Your task to perform on an android device: Open notification settings Image 0: 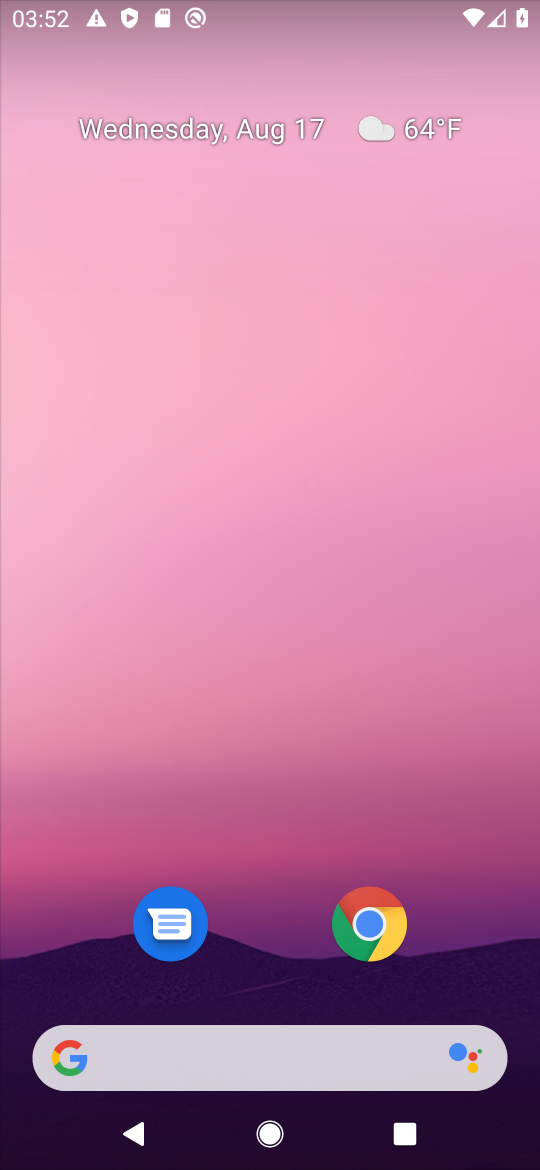
Step 0: drag from (289, 1007) to (183, 28)
Your task to perform on an android device: Open notification settings Image 1: 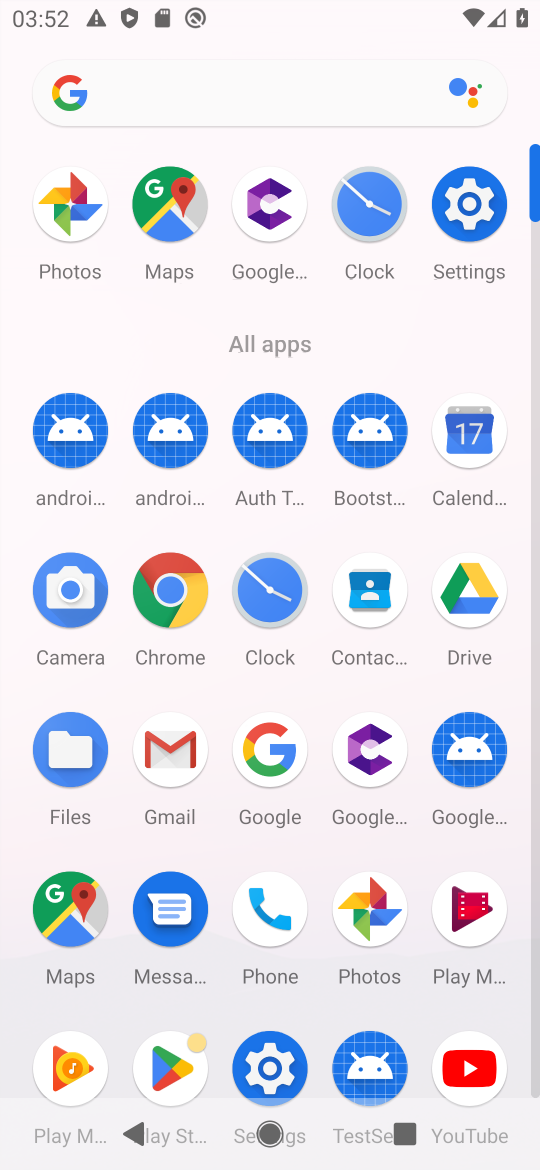
Step 1: click (449, 205)
Your task to perform on an android device: Open notification settings Image 2: 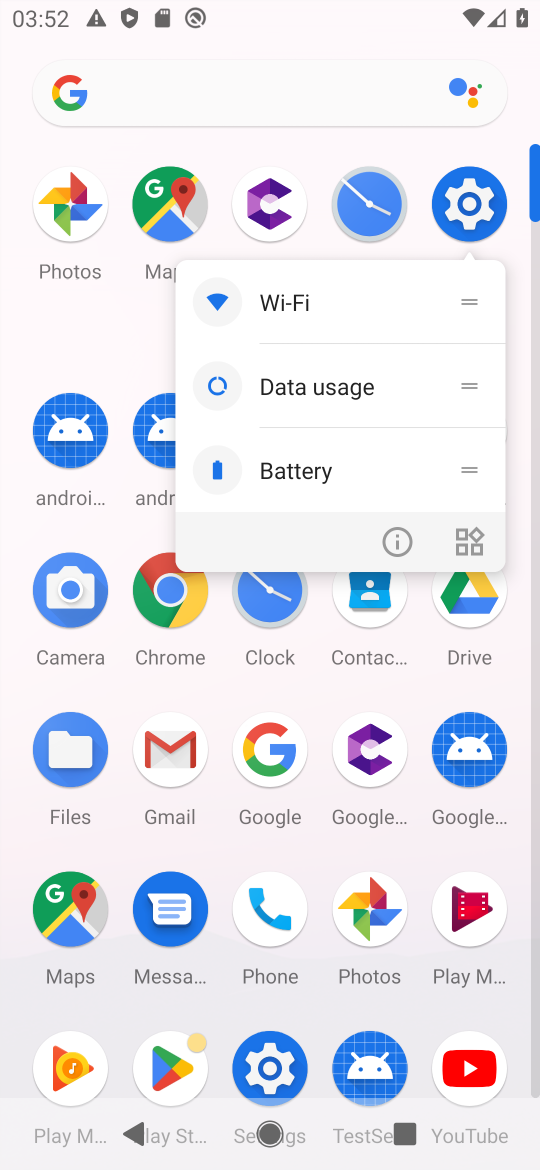
Step 2: click (451, 201)
Your task to perform on an android device: Open notification settings Image 3: 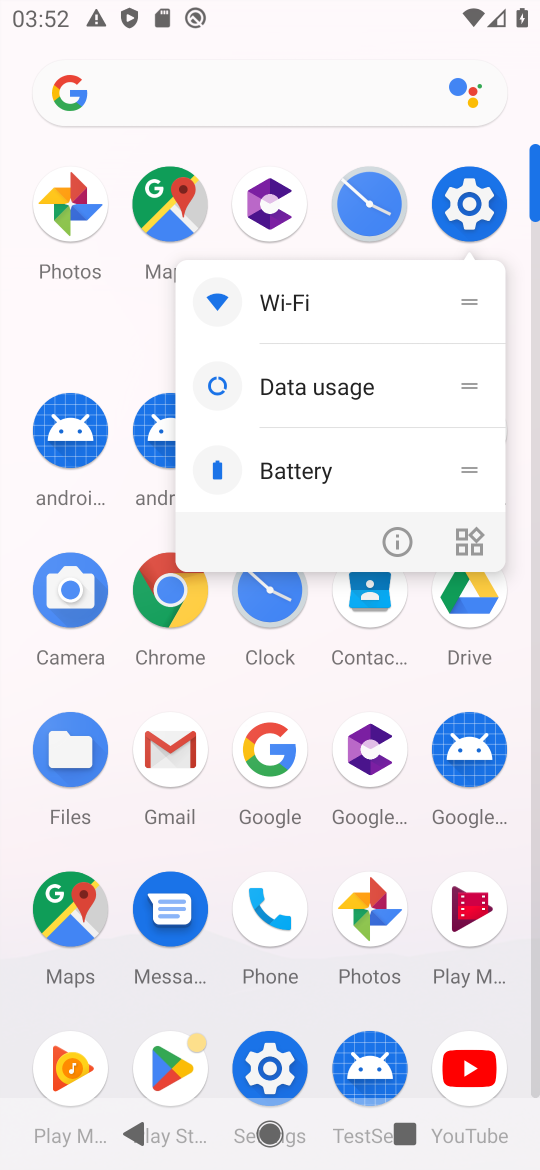
Step 3: click (470, 234)
Your task to perform on an android device: Open notification settings Image 4: 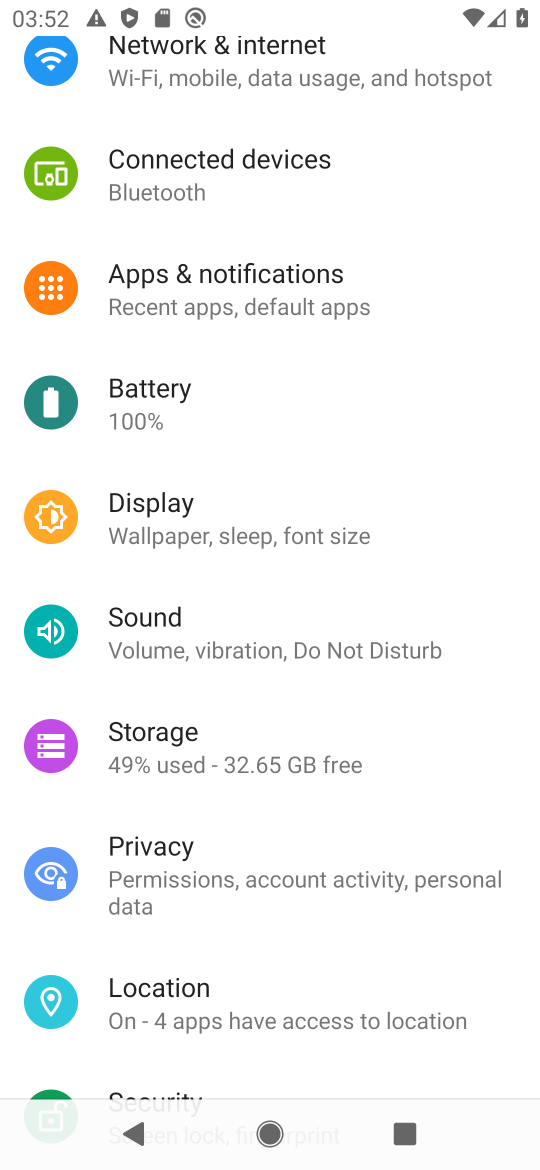
Step 4: click (199, 269)
Your task to perform on an android device: Open notification settings Image 5: 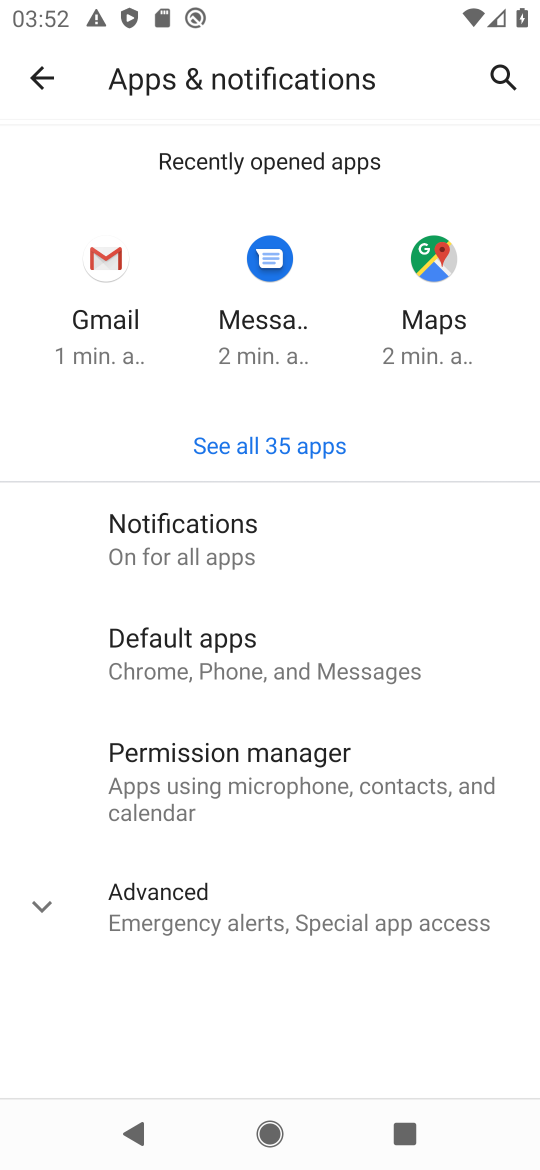
Step 5: click (180, 517)
Your task to perform on an android device: Open notification settings Image 6: 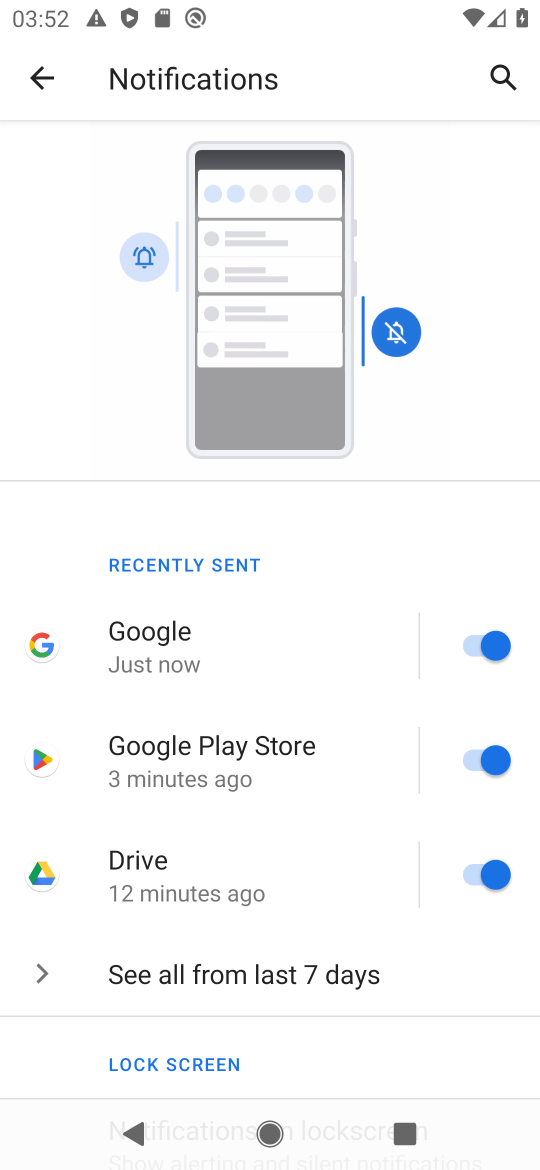
Step 6: task complete